Your task to perform on an android device: create a new album in the google photos Image 0: 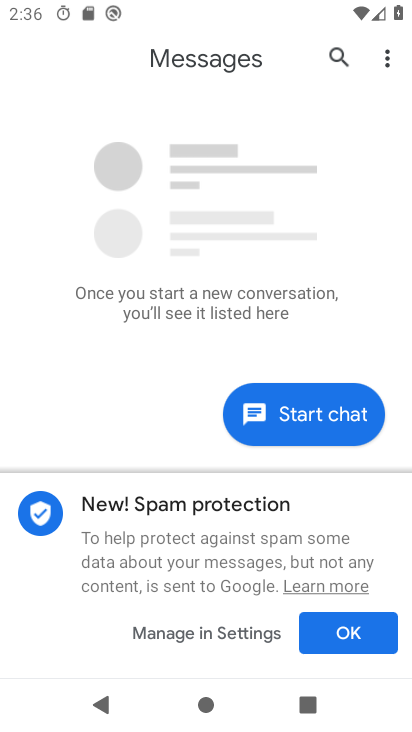
Step 0: press home button
Your task to perform on an android device: create a new album in the google photos Image 1: 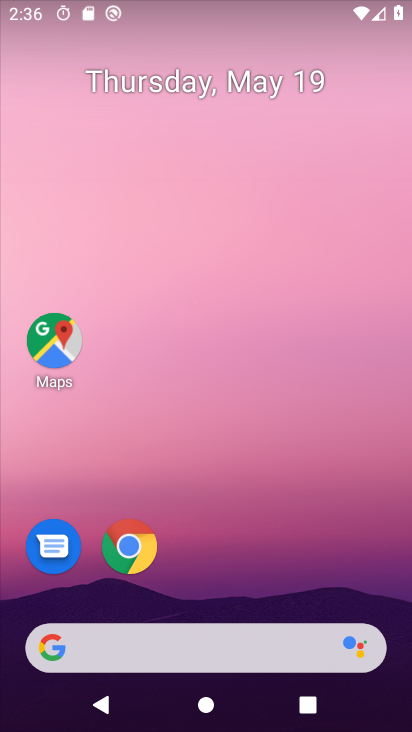
Step 1: drag from (236, 518) to (260, 63)
Your task to perform on an android device: create a new album in the google photos Image 2: 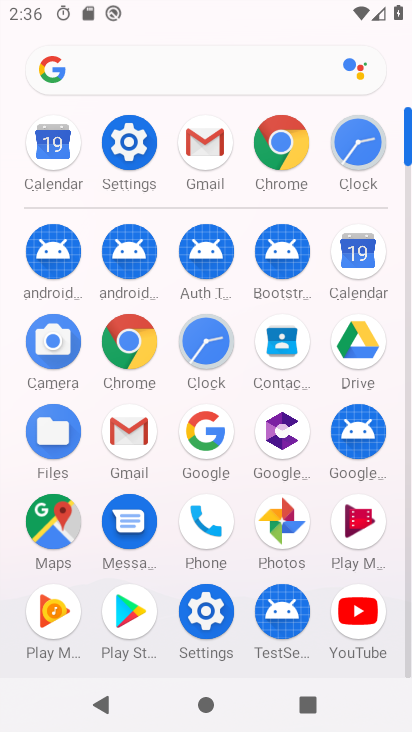
Step 2: click (285, 515)
Your task to perform on an android device: create a new album in the google photos Image 3: 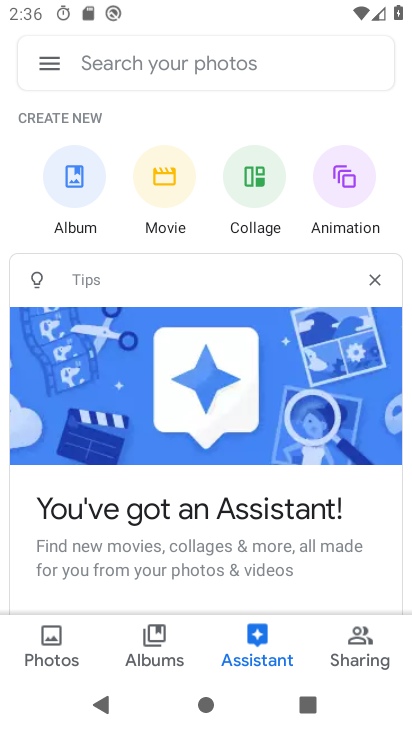
Step 3: click (154, 640)
Your task to perform on an android device: create a new album in the google photos Image 4: 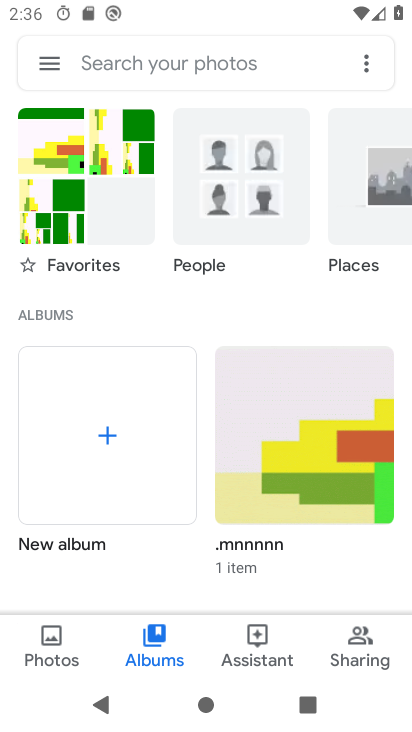
Step 4: click (366, 64)
Your task to perform on an android device: create a new album in the google photos Image 5: 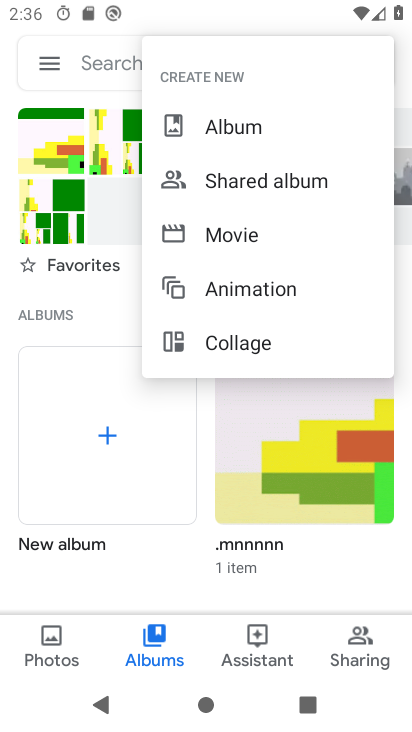
Step 5: click (237, 126)
Your task to perform on an android device: create a new album in the google photos Image 6: 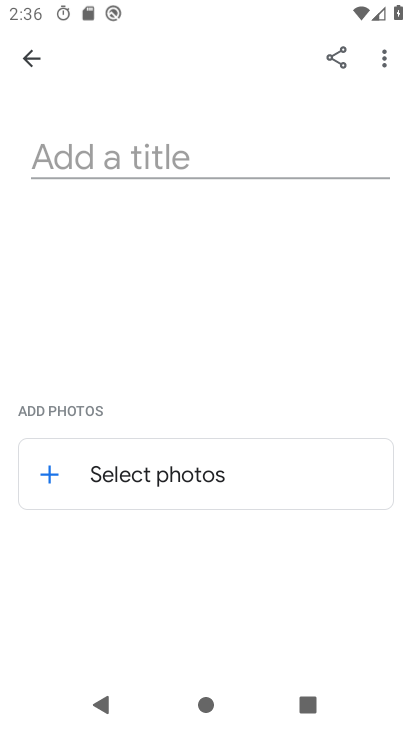
Step 6: click (54, 471)
Your task to perform on an android device: create a new album in the google photos Image 7: 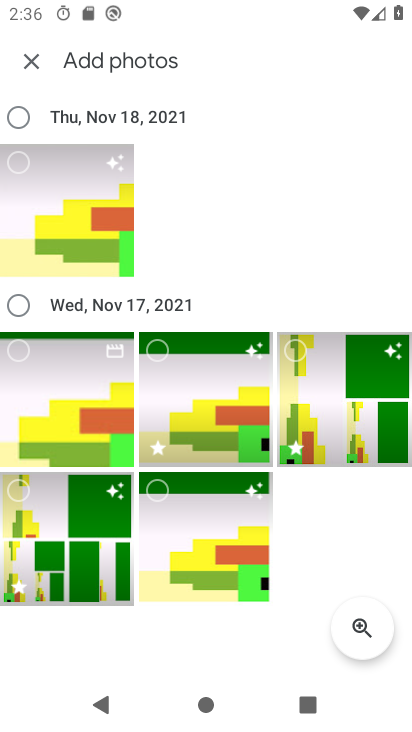
Step 7: click (212, 583)
Your task to perform on an android device: create a new album in the google photos Image 8: 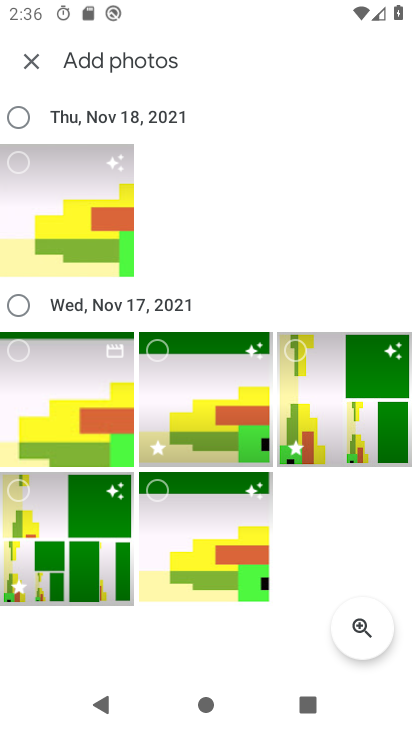
Step 8: click (207, 322)
Your task to perform on an android device: create a new album in the google photos Image 9: 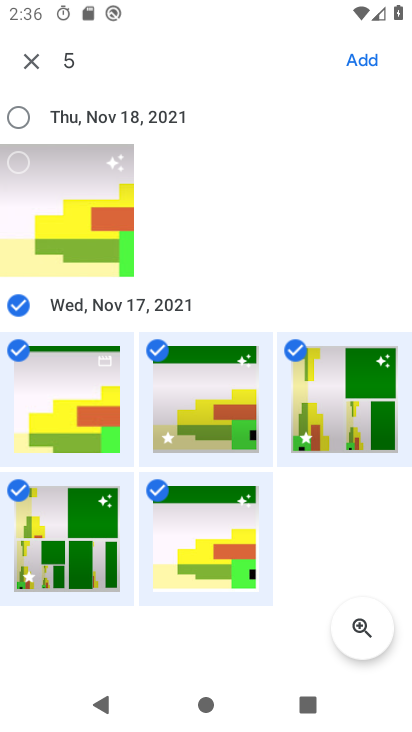
Step 9: click (343, 54)
Your task to perform on an android device: create a new album in the google photos Image 10: 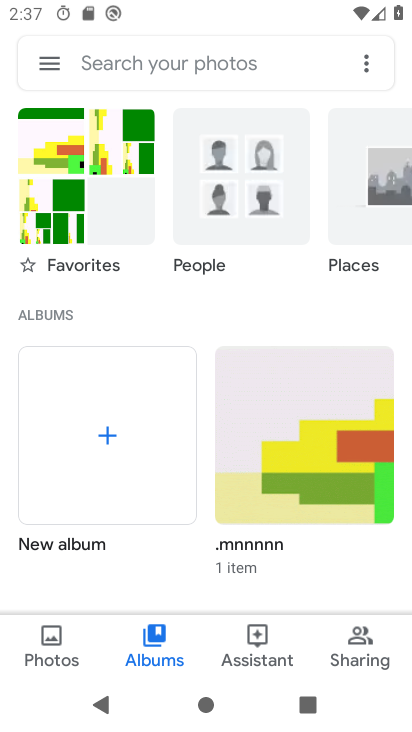
Step 10: click (367, 56)
Your task to perform on an android device: create a new album in the google photos Image 11: 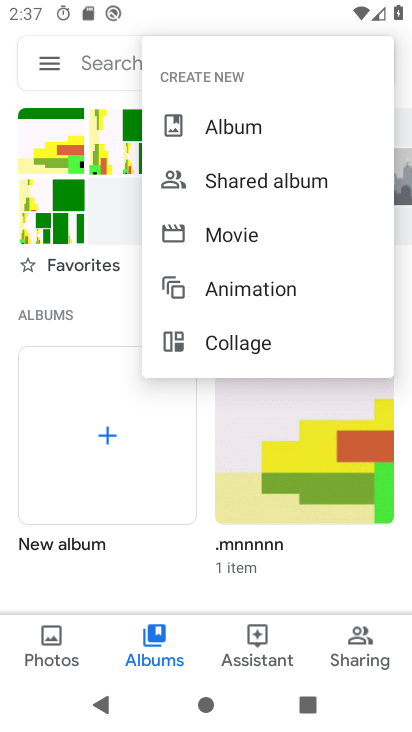
Step 11: click (228, 71)
Your task to perform on an android device: create a new album in the google photos Image 12: 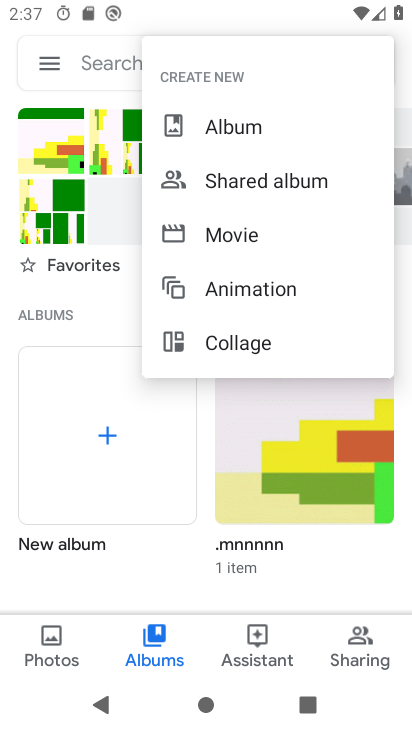
Step 12: click (228, 119)
Your task to perform on an android device: create a new album in the google photos Image 13: 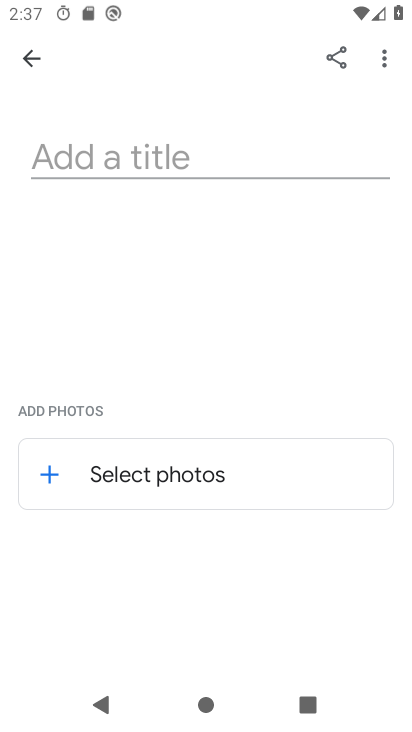
Step 13: click (70, 479)
Your task to perform on an android device: create a new album in the google photos Image 14: 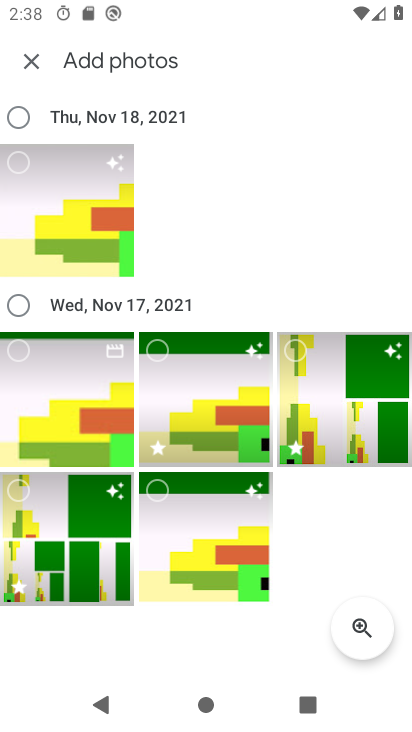
Step 14: click (167, 403)
Your task to perform on an android device: create a new album in the google photos Image 15: 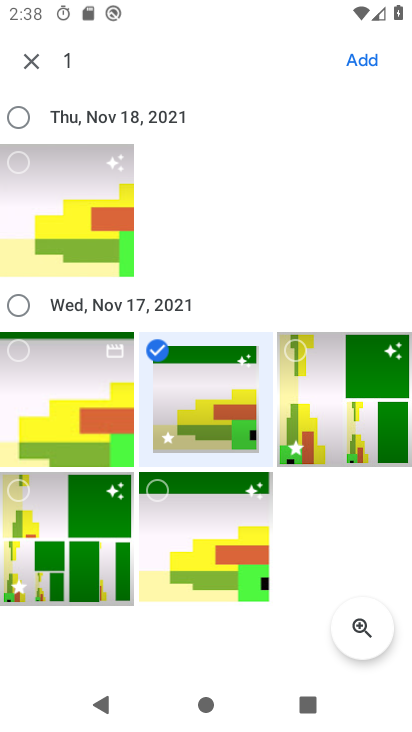
Step 15: click (55, 566)
Your task to perform on an android device: create a new album in the google photos Image 16: 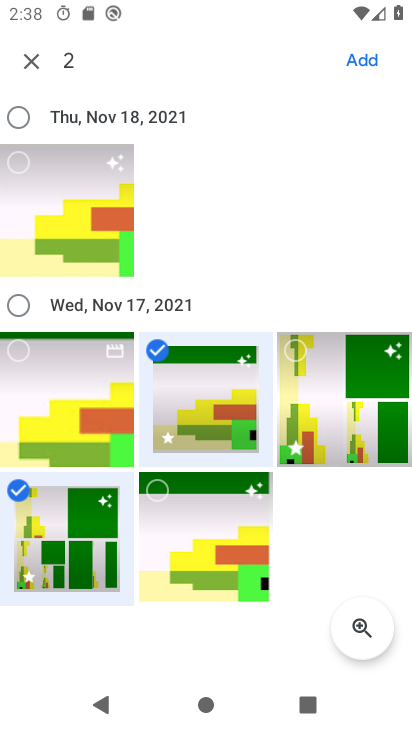
Step 16: click (150, 348)
Your task to perform on an android device: create a new album in the google photos Image 17: 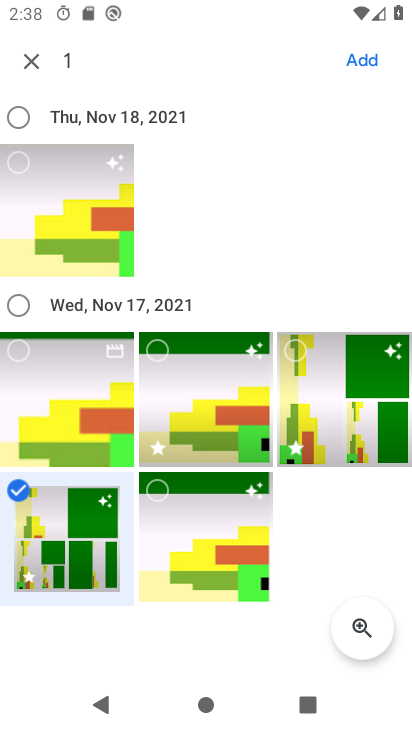
Step 17: click (146, 536)
Your task to perform on an android device: create a new album in the google photos Image 18: 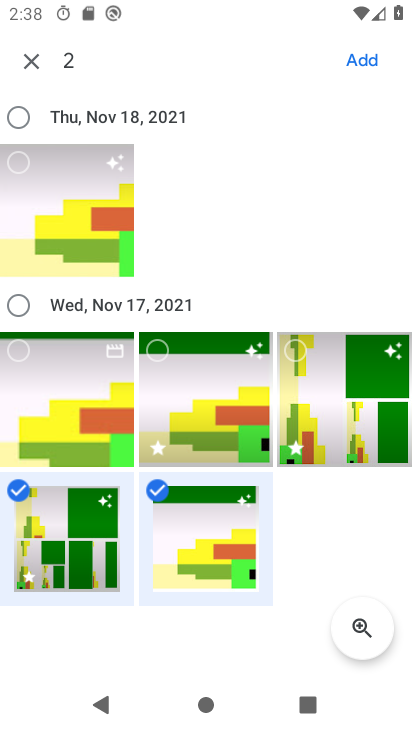
Step 18: click (369, 56)
Your task to perform on an android device: create a new album in the google photos Image 19: 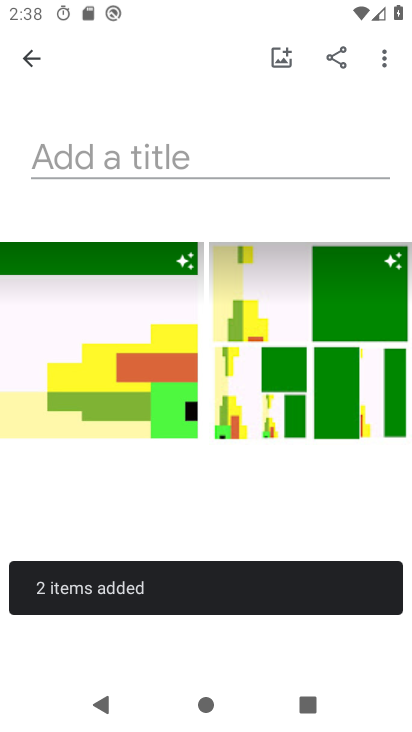
Step 19: click (93, 135)
Your task to perform on an android device: create a new album in the google photos Image 20: 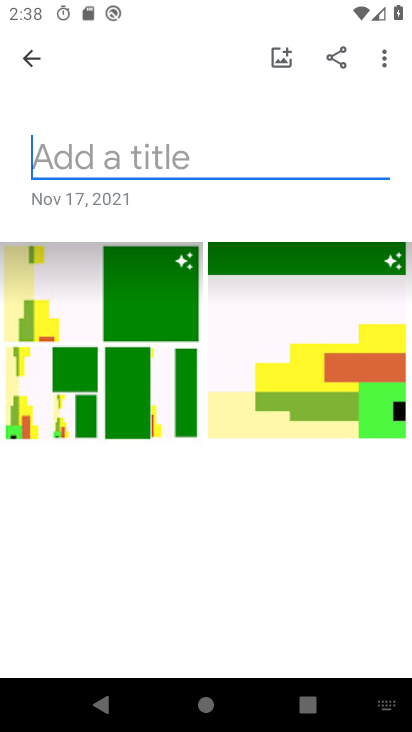
Step 20: type "nhfyfrtd"
Your task to perform on an android device: create a new album in the google photos Image 21: 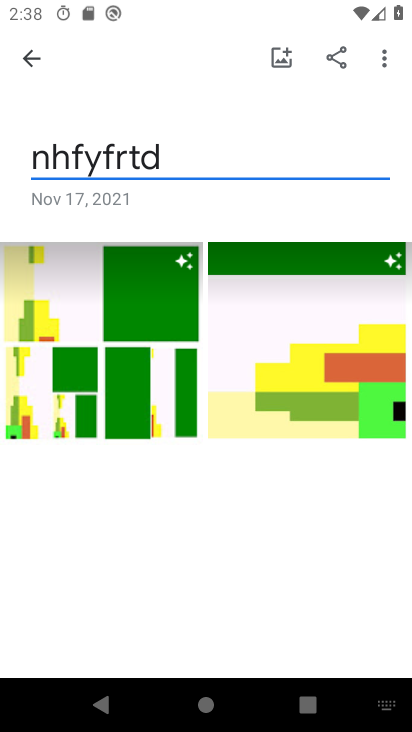
Step 21: click (207, 564)
Your task to perform on an android device: create a new album in the google photos Image 22: 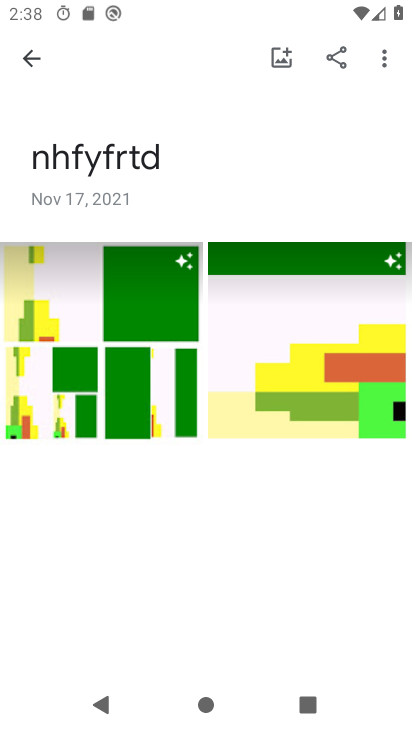
Step 22: task complete